Your task to perform on an android device: turn vacation reply on in the gmail app Image 0: 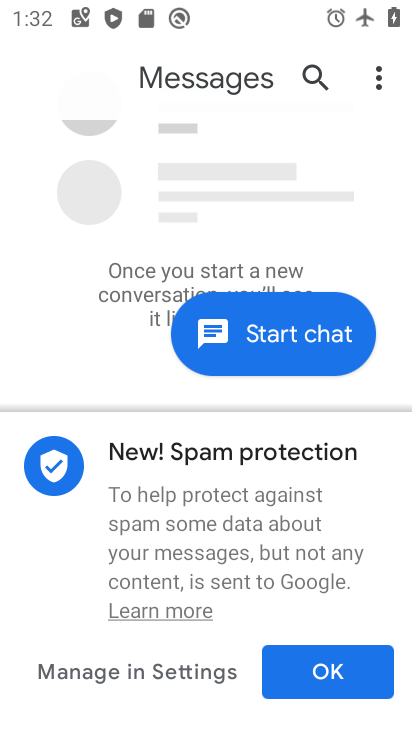
Step 0: press home button
Your task to perform on an android device: turn vacation reply on in the gmail app Image 1: 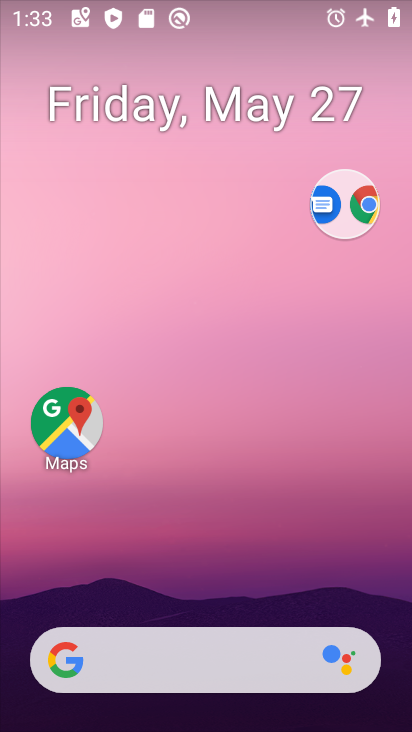
Step 1: drag from (204, 636) to (211, 96)
Your task to perform on an android device: turn vacation reply on in the gmail app Image 2: 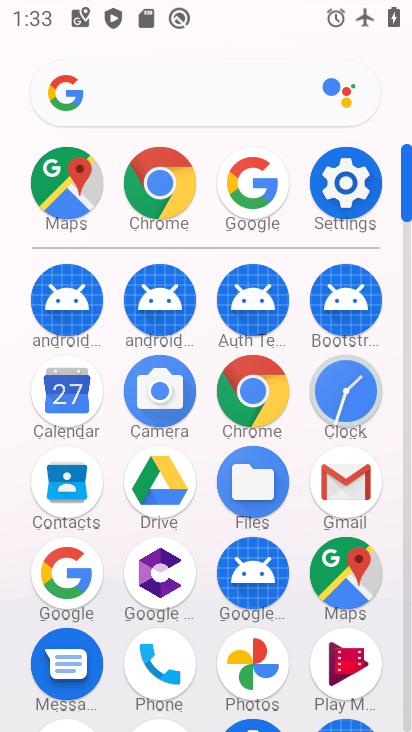
Step 2: click (351, 497)
Your task to perform on an android device: turn vacation reply on in the gmail app Image 3: 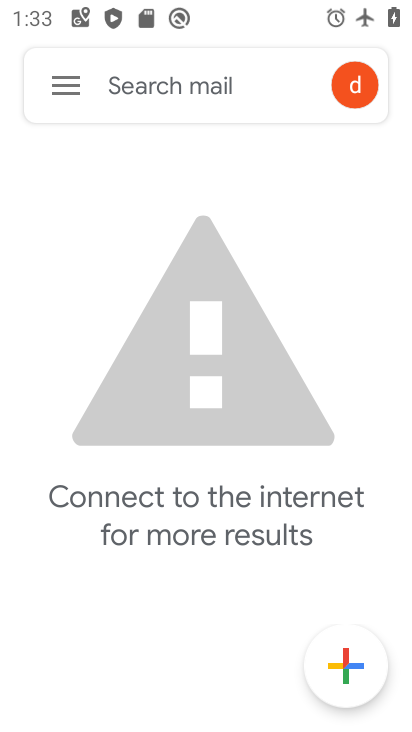
Step 3: click (74, 90)
Your task to perform on an android device: turn vacation reply on in the gmail app Image 4: 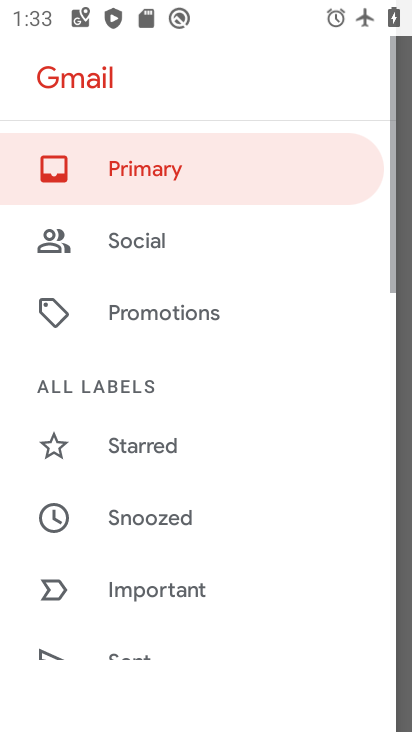
Step 4: drag from (145, 534) to (210, 178)
Your task to perform on an android device: turn vacation reply on in the gmail app Image 5: 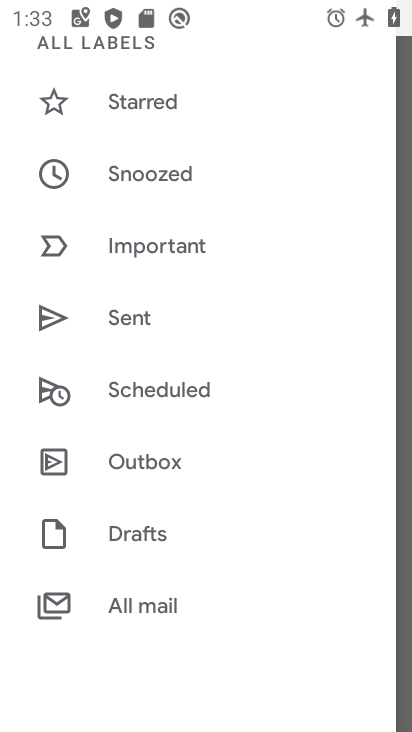
Step 5: drag from (177, 510) to (247, 200)
Your task to perform on an android device: turn vacation reply on in the gmail app Image 6: 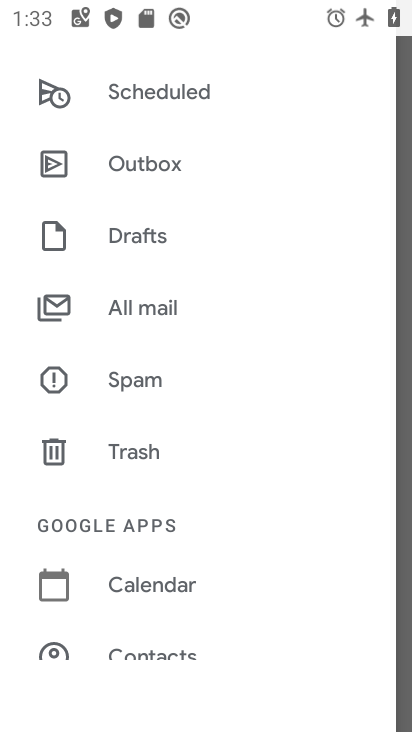
Step 6: drag from (159, 535) to (217, 164)
Your task to perform on an android device: turn vacation reply on in the gmail app Image 7: 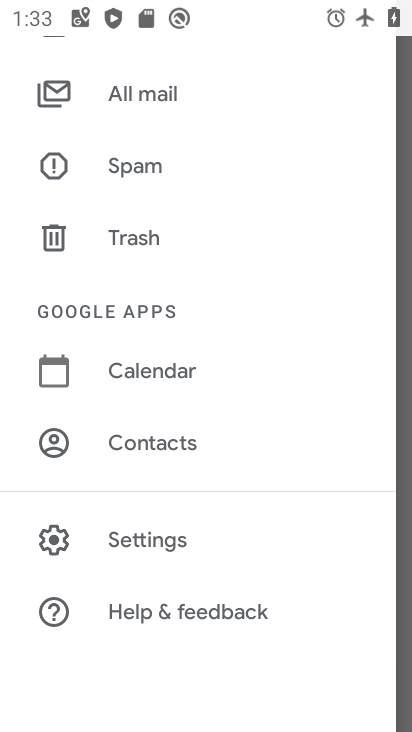
Step 7: click (154, 549)
Your task to perform on an android device: turn vacation reply on in the gmail app Image 8: 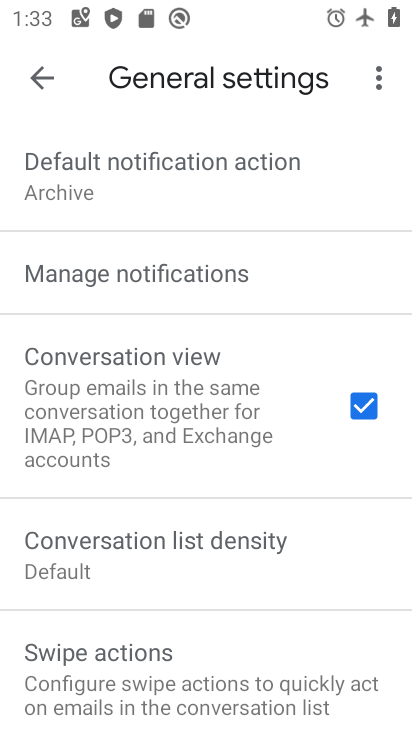
Step 8: click (36, 81)
Your task to perform on an android device: turn vacation reply on in the gmail app Image 9: 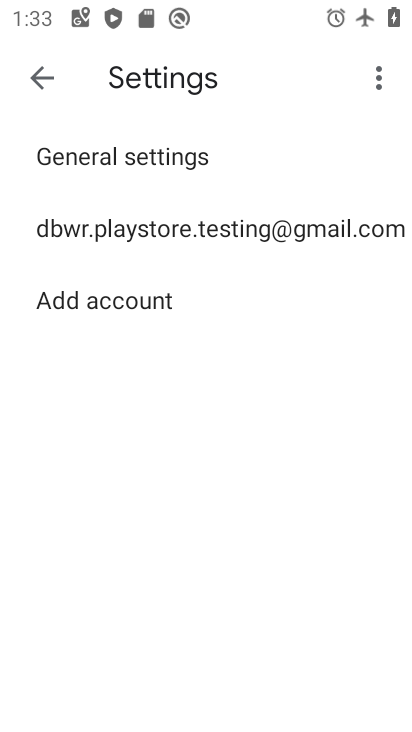
Step 9: click (147, 233)
Your task to perform on an android device: turn vacation reply on in the gmail app Image 10: 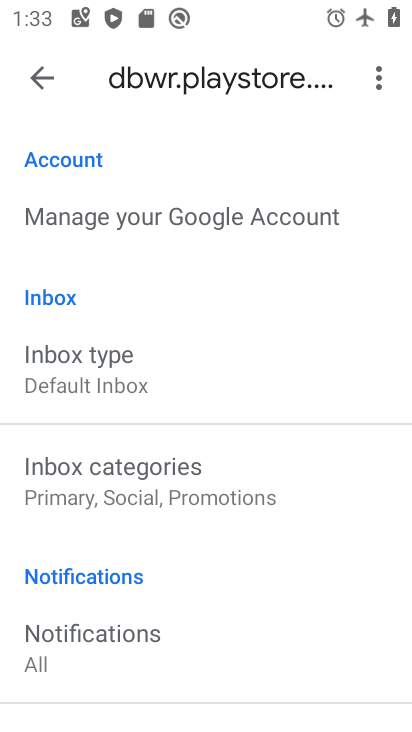
Step 10: drag from (158, 531) to (194, 290)
Your task to perform on an android device: turn vacation reply on in the gmail app Image 11: 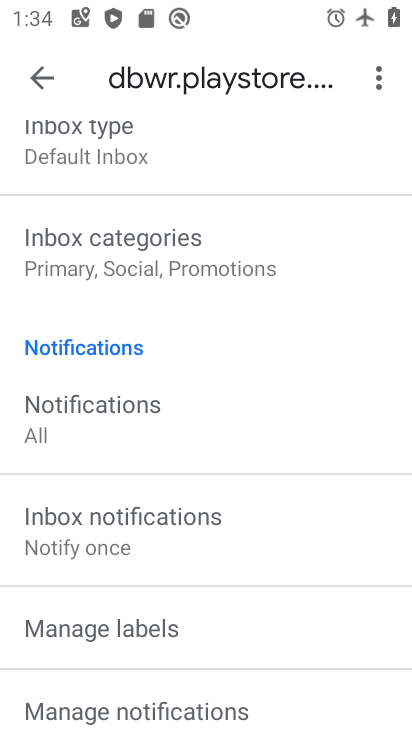
Step 11: drag from (195, 531) to (240, 265)
Your task to perform on an android device: turn vacation reply on in the gmail app Image 12: 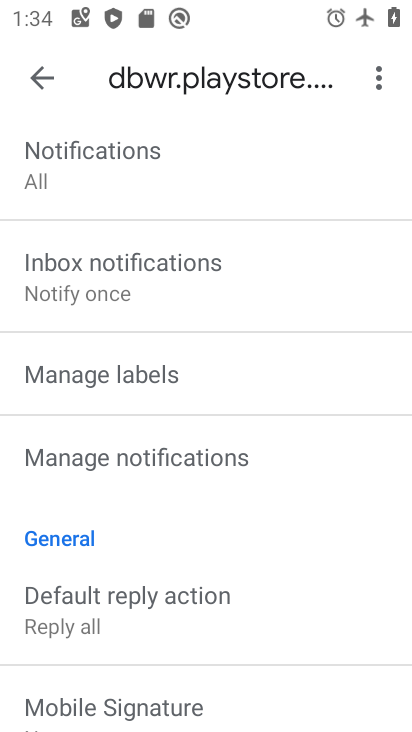
Step 12: drag from (165, 598) to (244, 184)
Your task to perform on an android device: turn vacation reply on in the gmail app Image 13: 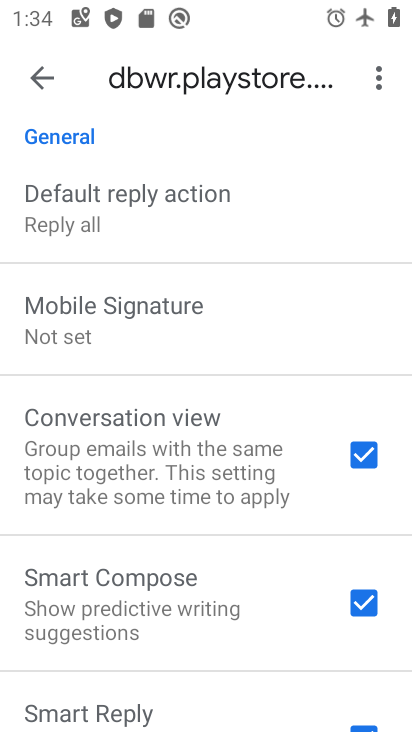
Step 13: drag from (182, 591) to (254, 297)
Your task to perform on an android device: turn vacation reply on in the gmail app Image 14: 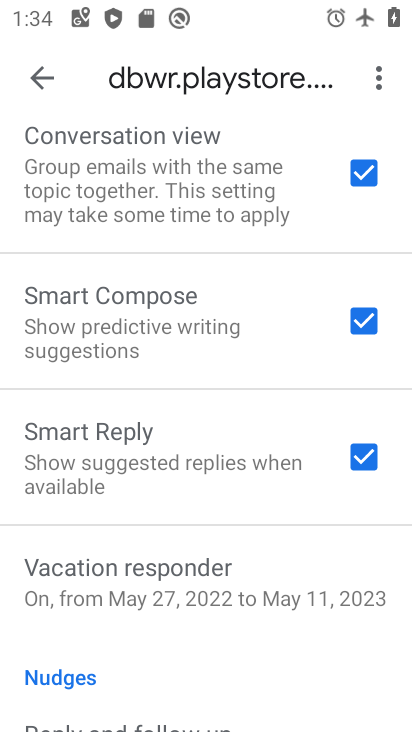
Step 14: click (213, 592)
Your task to perform on an android device: turn vacation reply on in the gmail app Image 15: 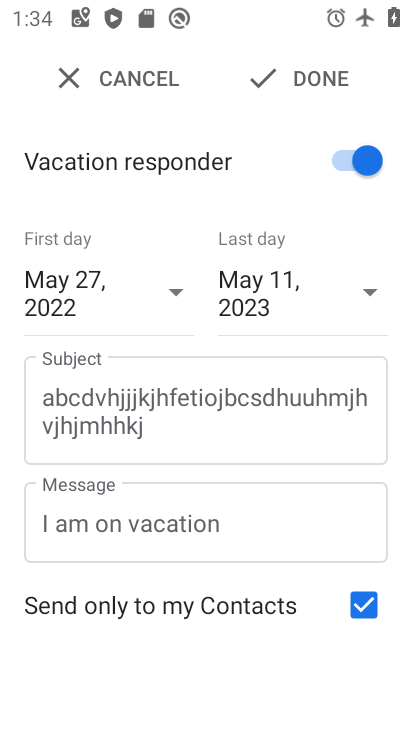
Step 15: task complete